Your task to perform on an android device: toggle data saver in the chrome app Image 0: 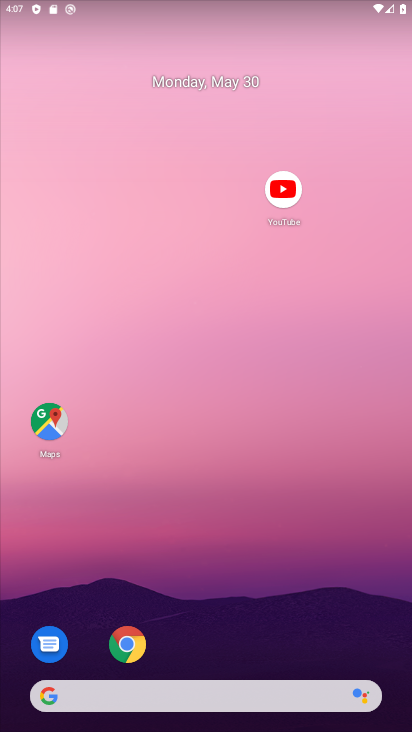
Step 0: click (142, 637)
Your task to perform on an android device: toggle data saver in the chrome app Image 1: 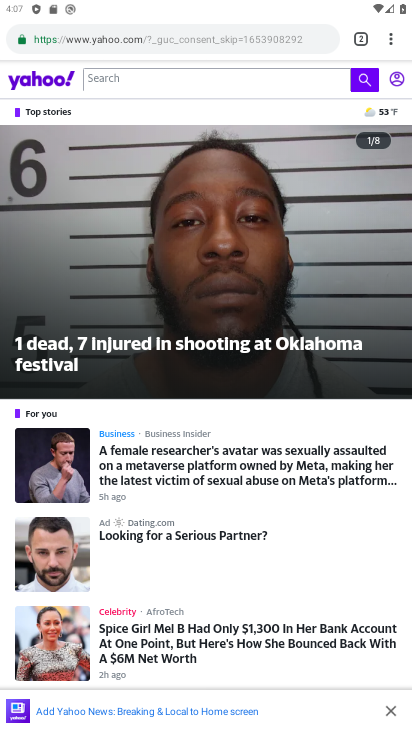
Step 1: click (389, 42)
Your task to perform on an android device: toggle data saver in the chrome app Image 2: 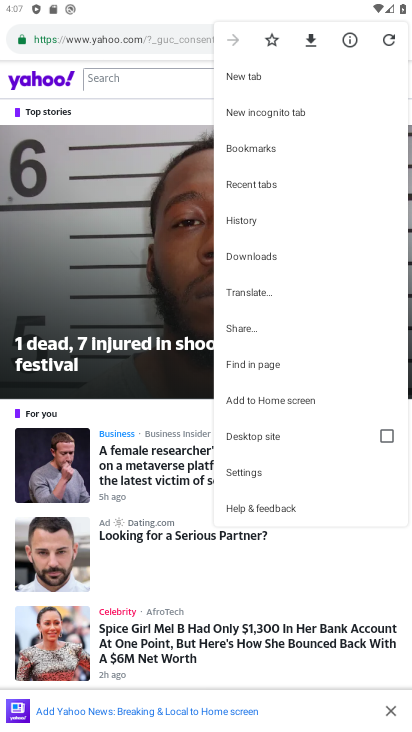
Step 2: click (255, 474)
Your task to perform on an android device: toggle data saver in the chrome app Image 3: 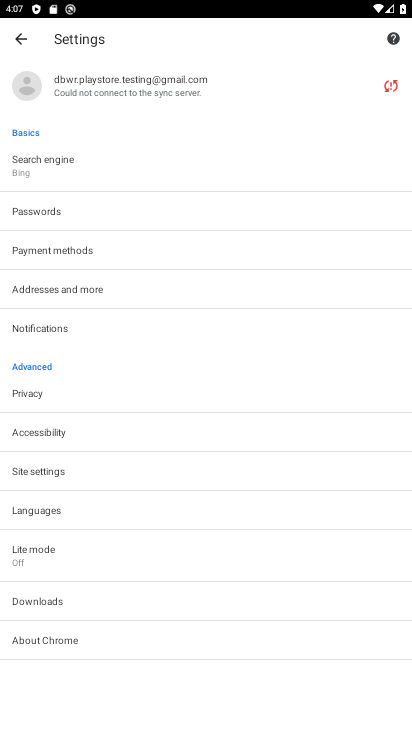
Step 3: click (51, 557)
Your task to perform on an android device: toggle data saver in the chrome app Image 4: 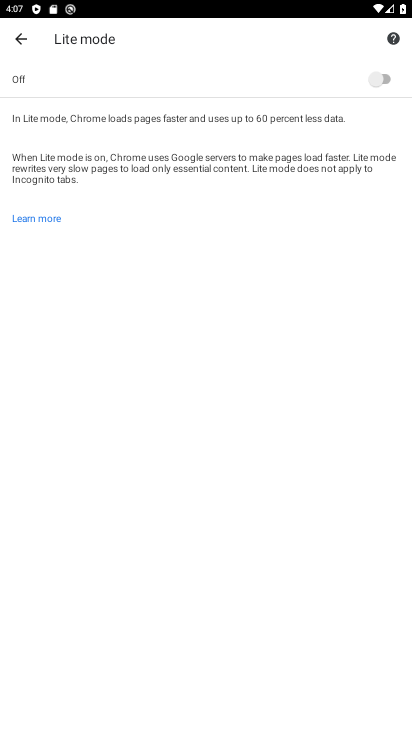
Step 4: click (385, 86)
Your task to perform on an android device: toggle data saver in the chrome app Image 5: 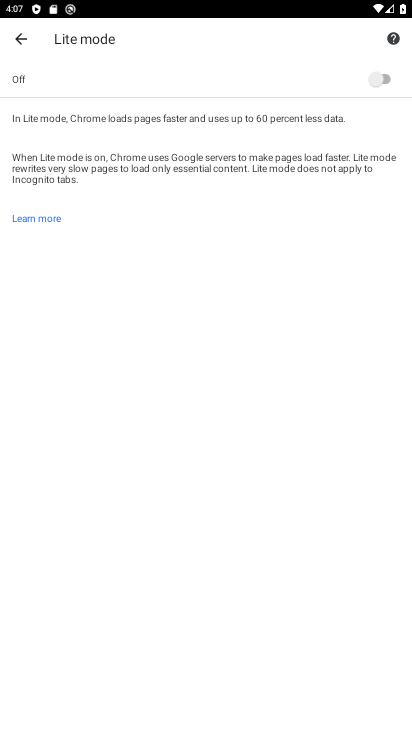
Step 5: click (385, 86)
Your task to perform on an android device: toggle data saver in the chrome app Image 6: 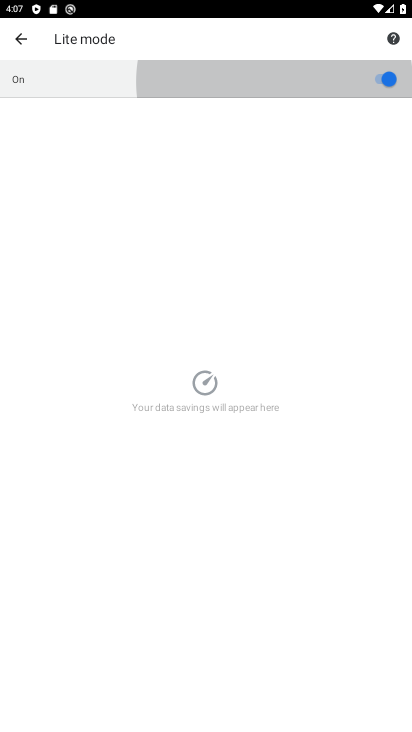
Step 6: click (385, 86)
Your task to perform on an android device: toggle data saver in the chrome app Image 7: 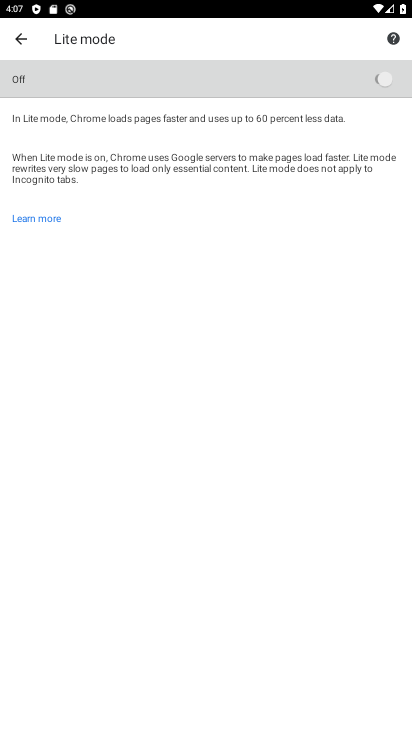
Step 7: click (385, 86)
Your task to perform on an android device: toggle data saver in the chrome app Image 8: 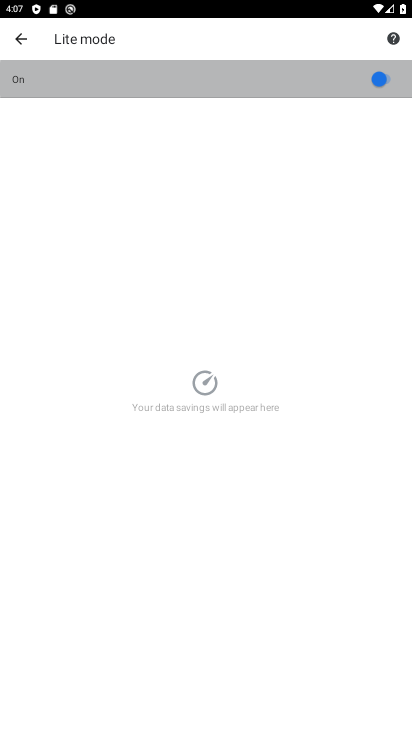
Step 8: click (385, 86)
Your task to perform on an android device: toggle data saver in the chrome app Image 9: 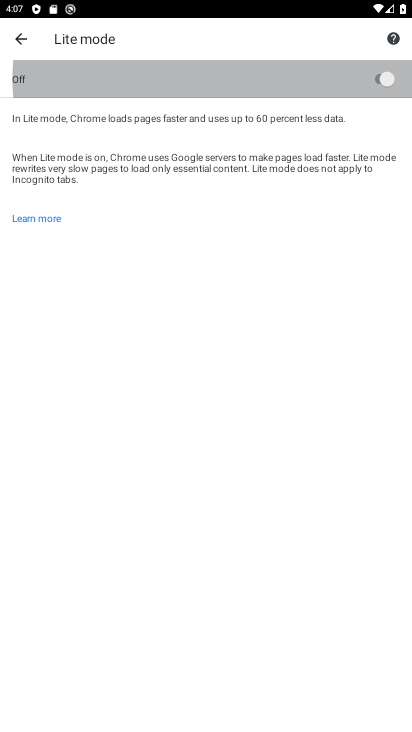
Step 9: click (385, 86)
Your task to perform on an android device: toggle data saver in the chrome app Image 10: 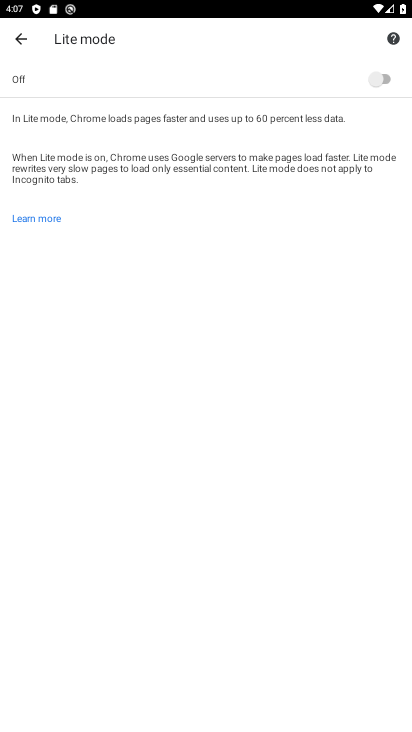
Step 10: task complete